Your task to perform on an android device: Turn off the flashlight Image 0: 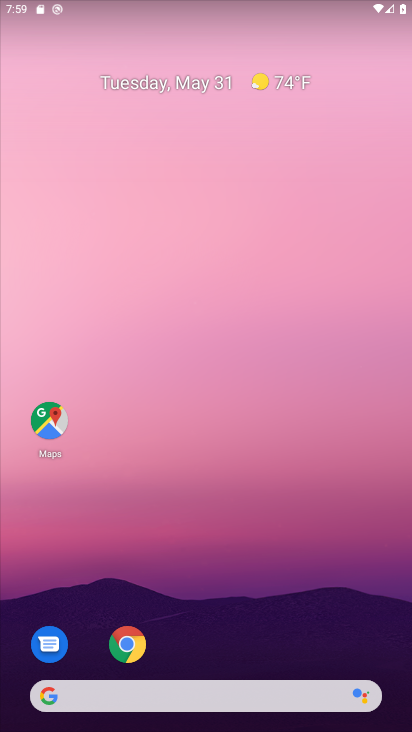
Step 0: press home button
Your task to perform on an android device: Turn off the flashlight Image 1: 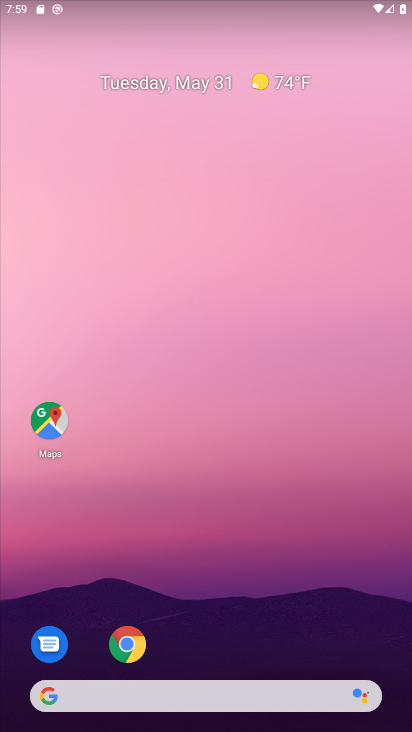
Step 1: drag from (207, 658) to (260, 58)
Your task to perform on an android device: Turn off the flashlight Image 2: 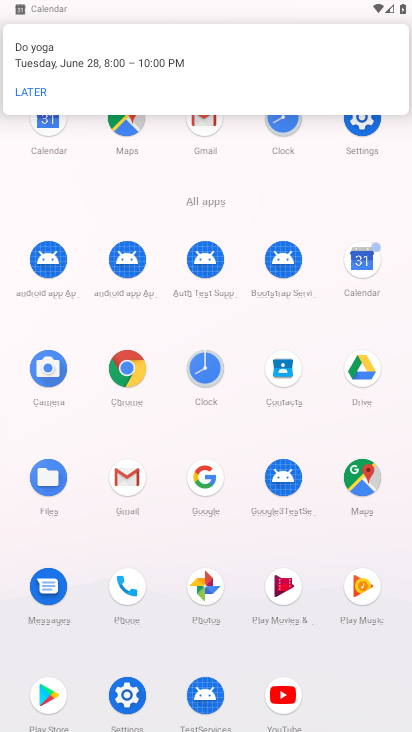
Step 2: click (362, 127)
Your task to perform on an android device: Turn off the flashlight Image 3: 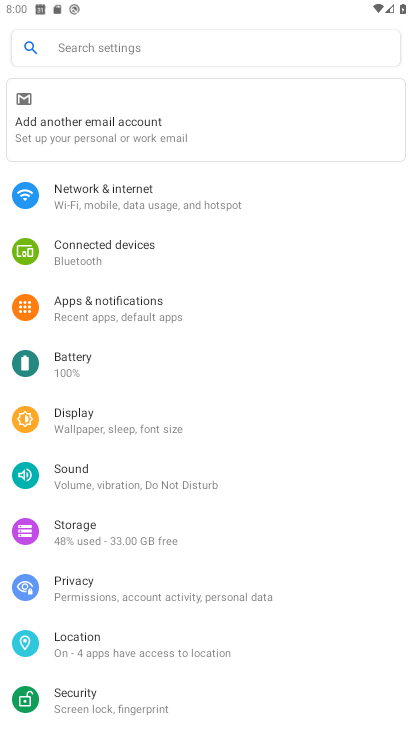
Step 3: click (109, 42)
Your task to perform on an android device: Turn off the flashlight Image 4: 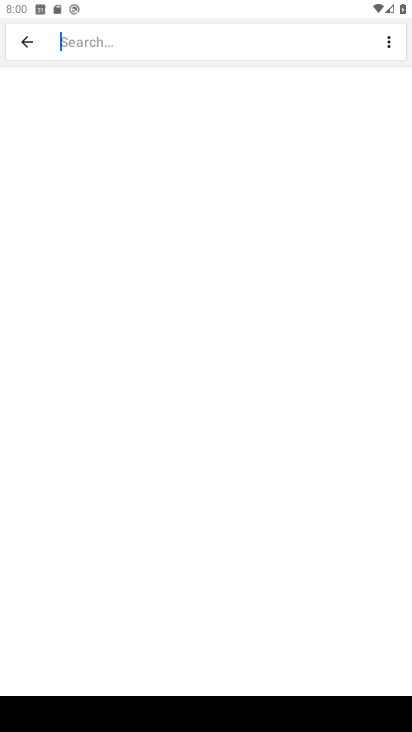
Step 4: type "flashlight"
Your task to perform on an android device: Turn off the flashlight Image 5: 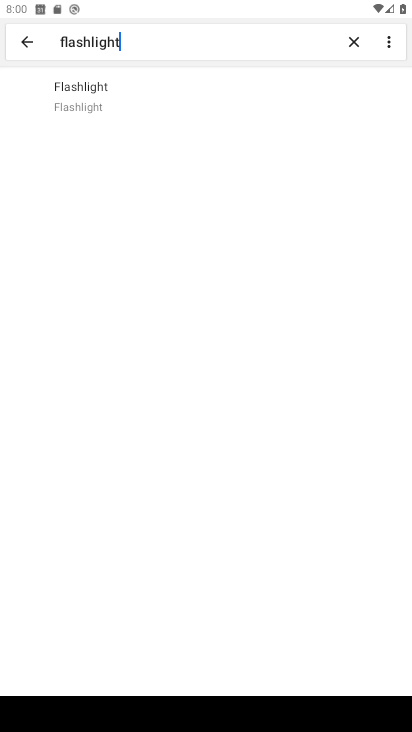
Step 5: click (109, 96)
Your task to perform on an android device: Turn off the flashlight Image 6: 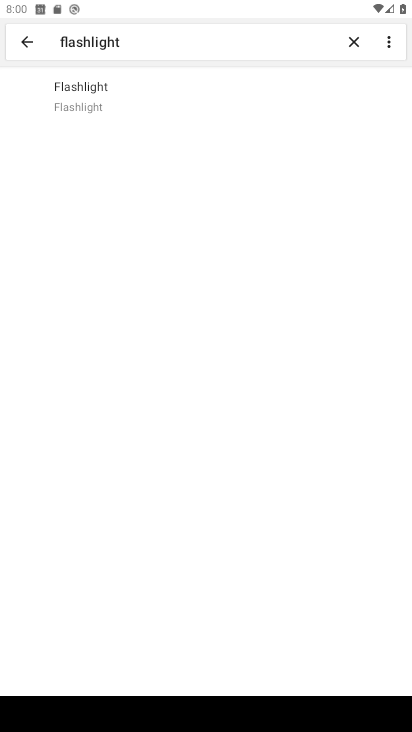
Step 6: click (111, 94)
Your task to perform on an android device: Turn off the flashlight Image 7: 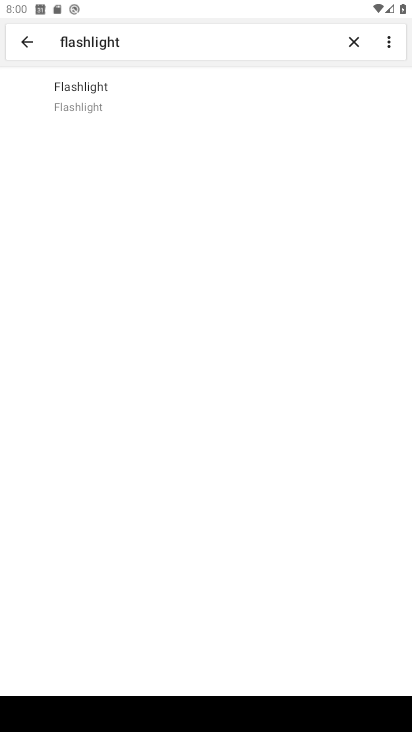
Step 7: task complete